Your task to perform on an android device: Open Youtube and go to "Your channel" Image 0: 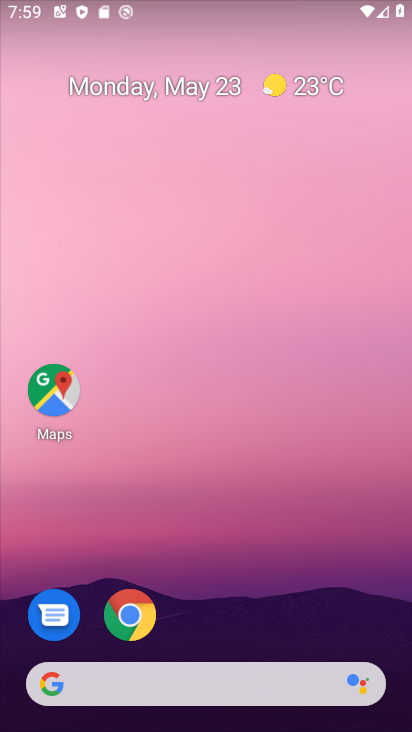
Step 0: drag from (231, 609) to (235, 122)
Your task to perform on an android device: Open Youtube and go to "Your channel" Image 1: 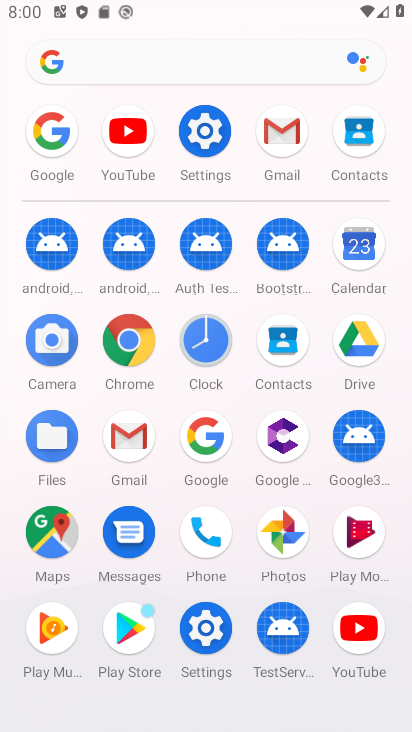
Step 1: click (128, 133)
Your task to perform on an android device: Open Youtube and go to "Your channel" Image 2: 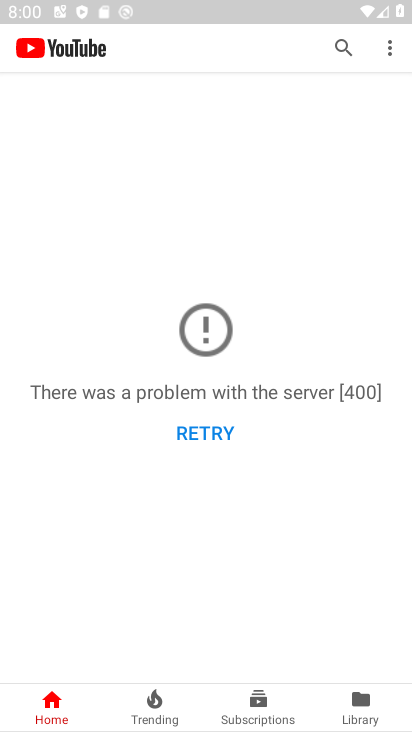
Step 2: click (358, 694)
Your task to perform on an android device: Open Youtube and go to "Your channel" Image 3: 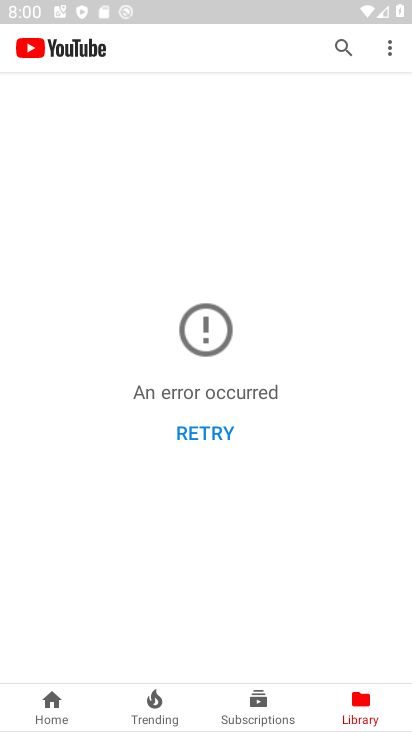
Step 3: click (389, 50)
Your task to perform on an android device: Open Youtube and go to "Your channel" Image 4: 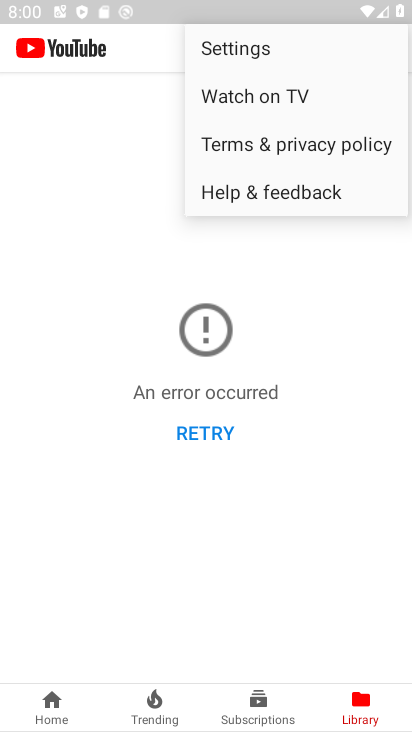
Step 4: click (42, 716)
Your task to perform on an android device: Open Youtube and go to "Your channel" Image 5: 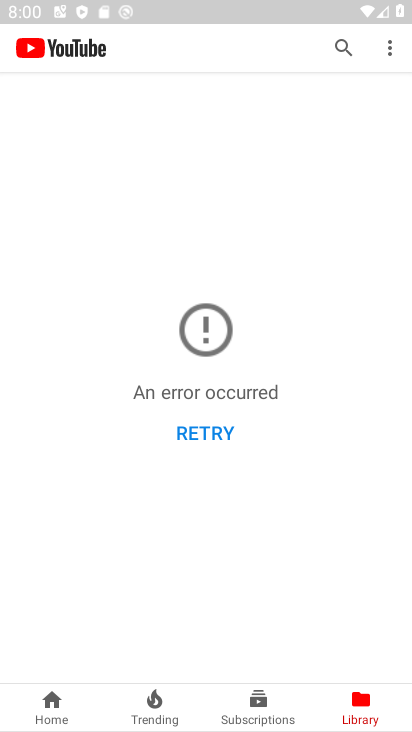
Step 5: click (51, 707)
Your task to perform on an android device: Open Youtube and go to "Your channel" Image 6: 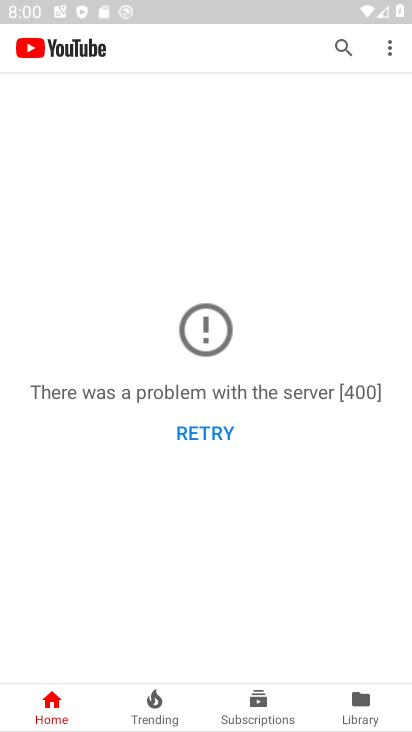
Step 6: task complete